Your task to perform on an android device: Toggle the flashlight Image 0: 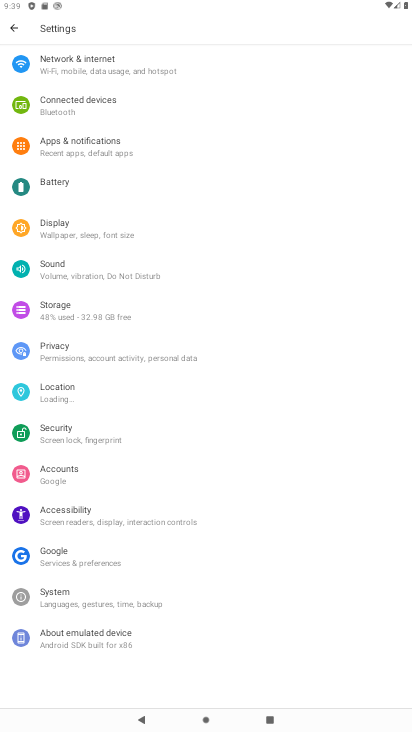
Step 0: drag from (223, 700) to (197, 192)
Your task to perform on an android device: Toggle the flashlight Image 1: 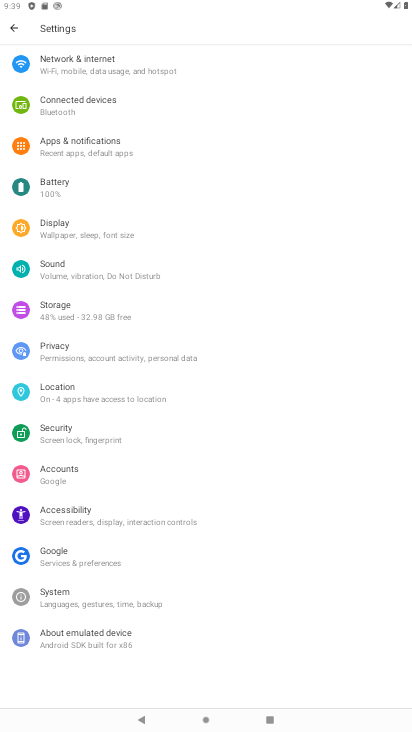
Step 1: task complete